Your task to perform on an android device: Do I have any events today? Image 0: 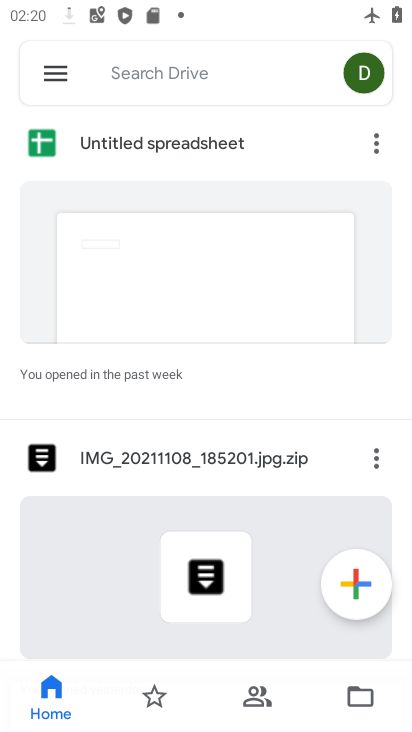
Step 0: press home button
Your task to perform on an android device: Do I have any events today? Image 1: 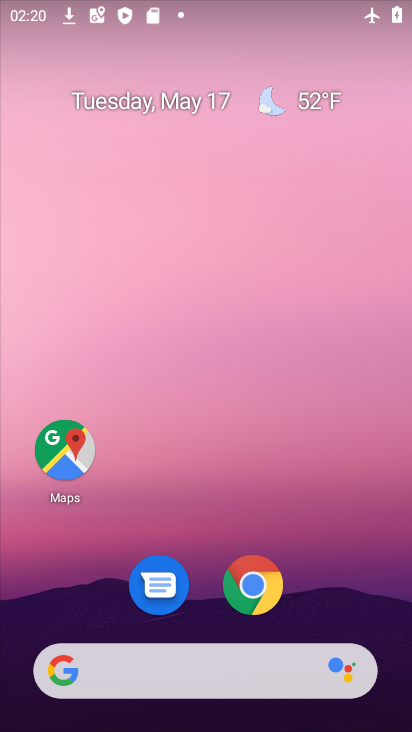
Step 1: drag from (331, 604) to (288, 32)
Your task to perform on an android device: Do I have any events today? Image 2: 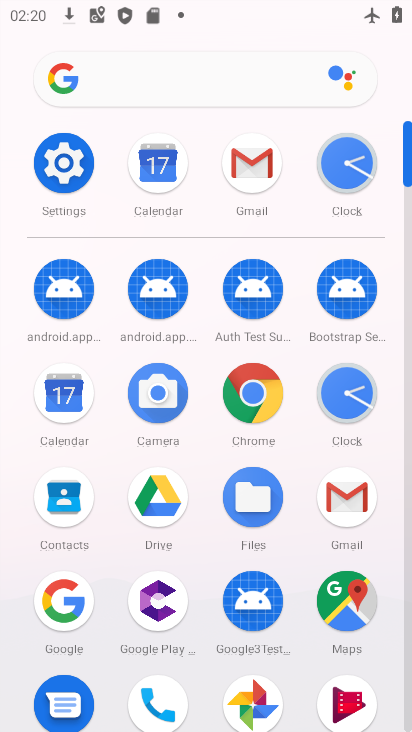
Step 2: click (162, 169)
Your task to perform on an android device: Do I have any events today? Image 3: 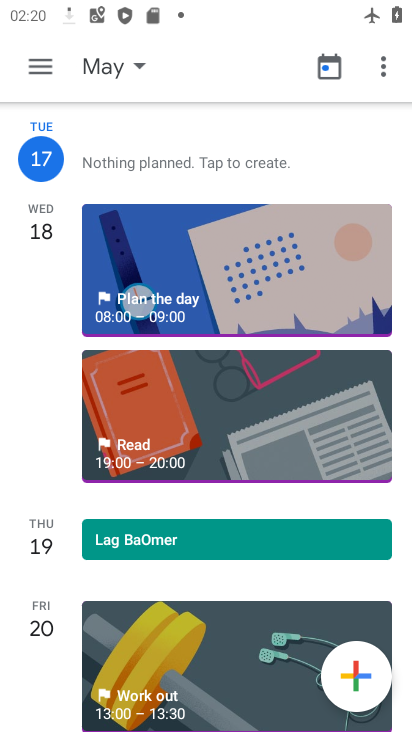
Step 3: task complete